Your task to perform on an android device: Open Youtube and go to "Your channel" Image 0: 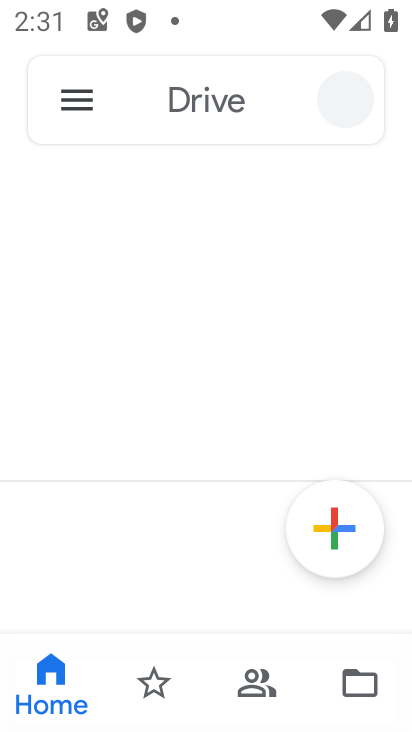
Step 0: drag from (75, 588) to (152, 328)
Your task to perform on an android device: Open Youtube and go to "Your channel" Image 1: 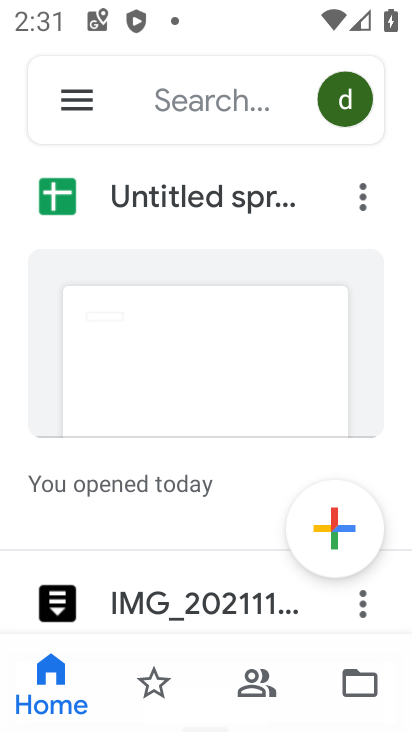
Step 1: press back button
Your task to perform on an android device: Open Youtube and go to "Your channel" Image 2: 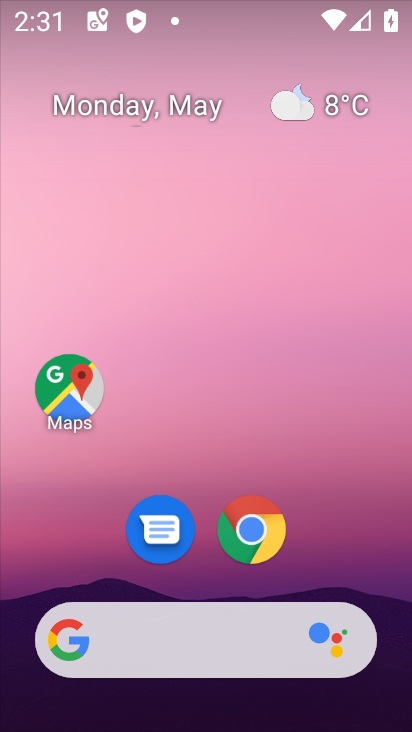
Step 2: drag from (298, 582) to (308, 430)
Your task to perform on an android device: Open Youtube and go to "Your channel" Image 3: 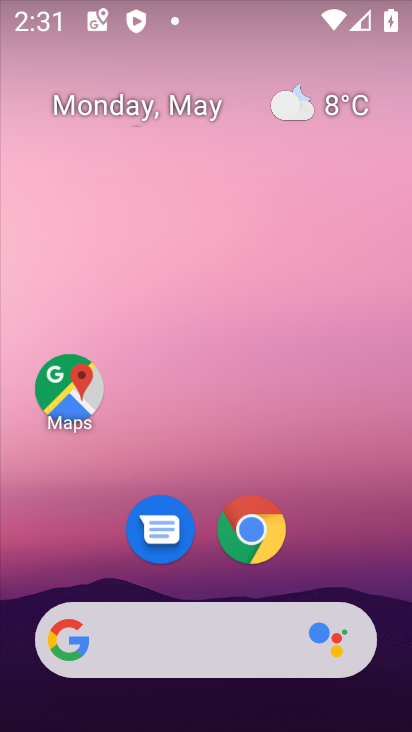
Step 3: drag from (309, 578) to (346, 231)
Your task to perform on an android device: Open Youtube and go to "Your channel" Image 4: 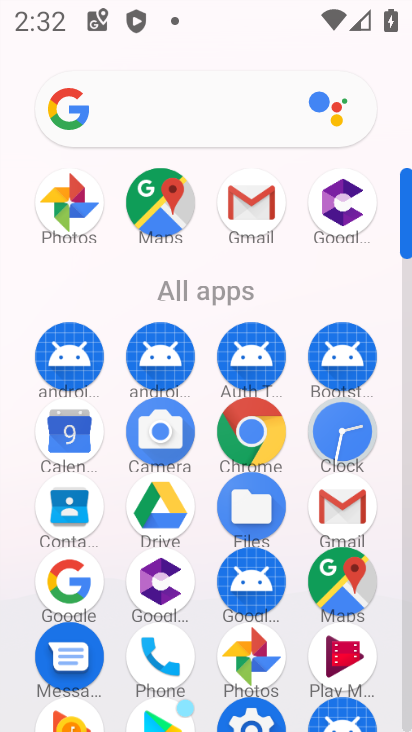
Step 4: drag from (203, 620) to (255, 434)
Your task to perform on an android device: Open Youtube and go to "Your channel" Image 5: 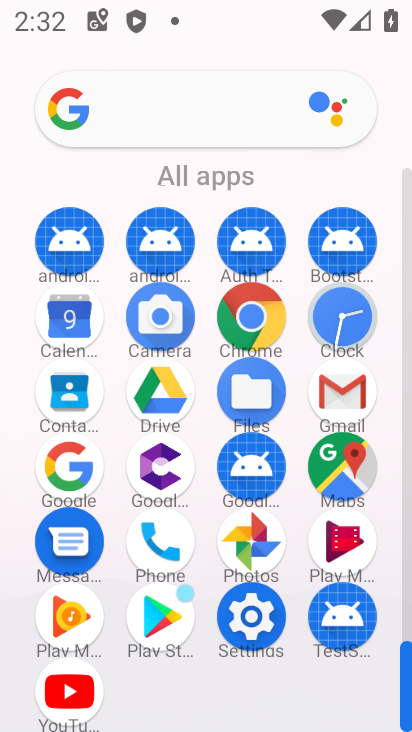
Step 5: click (47, 698)
Your task to perform on an android device: Open Youtube and go to "Your channel" Image 6: 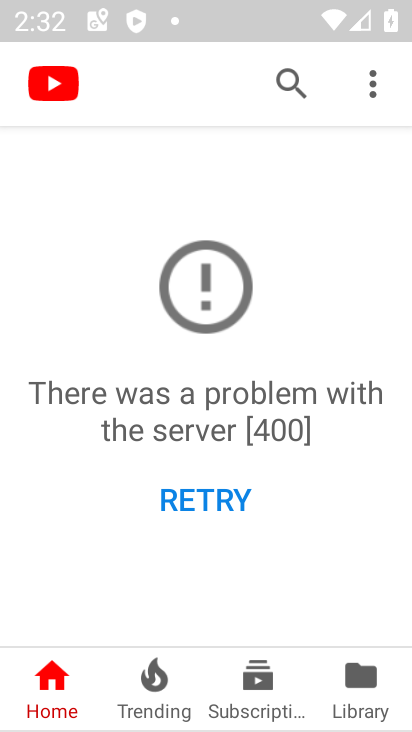
Step 6: click (371, 686)
Your task to perform on an android device: Open Youtube and go to "Your channel" Image 7: 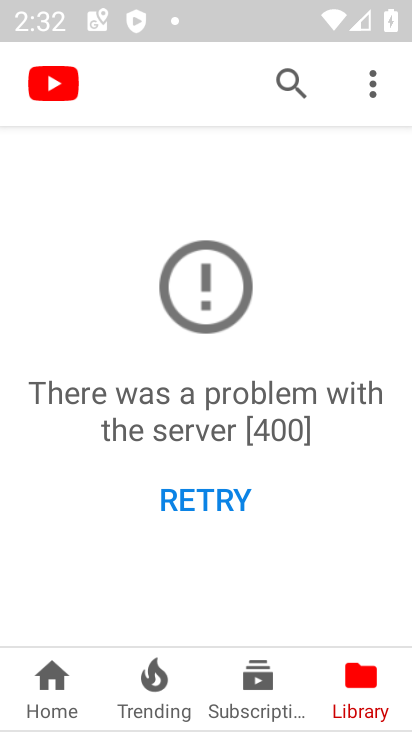
Step 7: task complete